Your task to perform on an android device: check android version Image 0: 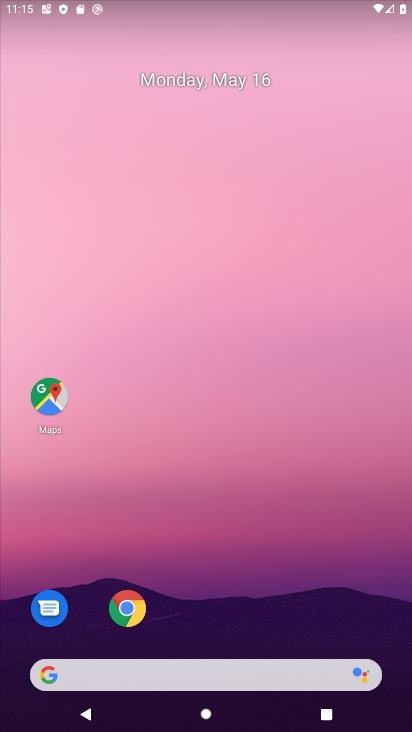
Step 0: press home button
Your task to perform on an android device: check android version Image 1: 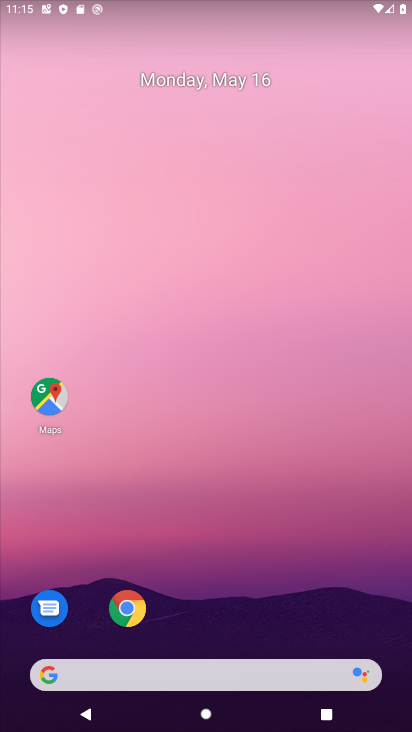
Step 1: drag from (218, 683) to (334, 271)
Your task to perform on an android device: check android version Image 2: 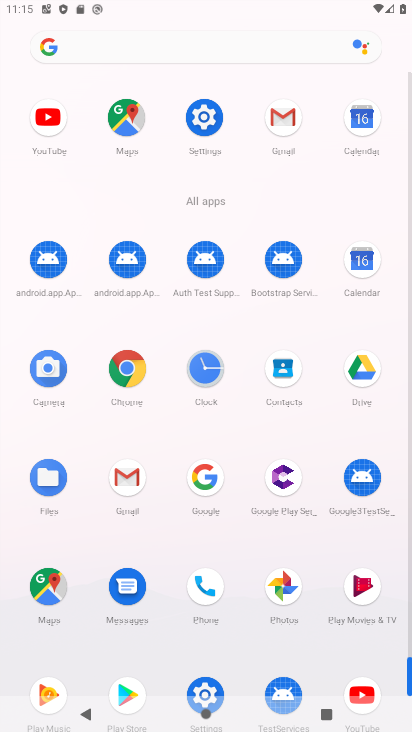
Step 2: click (209, 120)
Your task to perform on an android device: check android version Image 3: 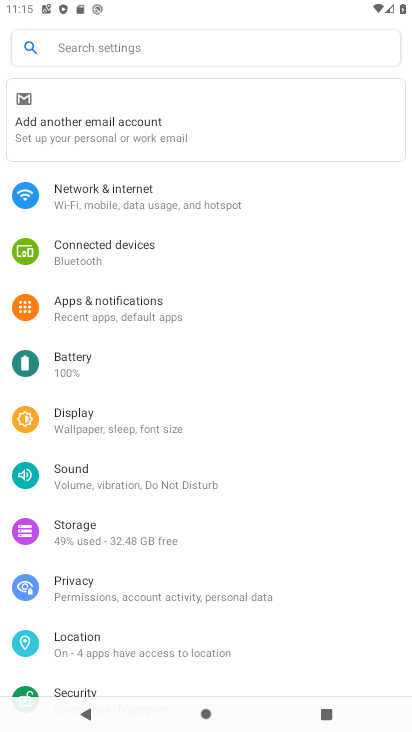
Step 3: drag from (235, 623) to (349, 70)
Your task to perform on an android device: check android version Image 4: 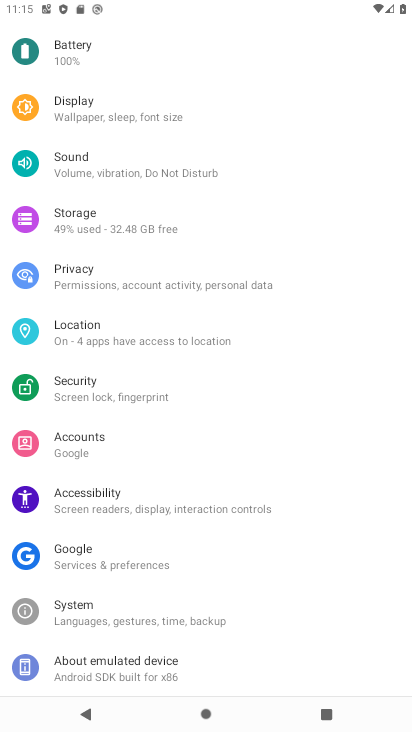
Step 4: click (123, 660)
Your task to perform on an android device: check android version Image 5: 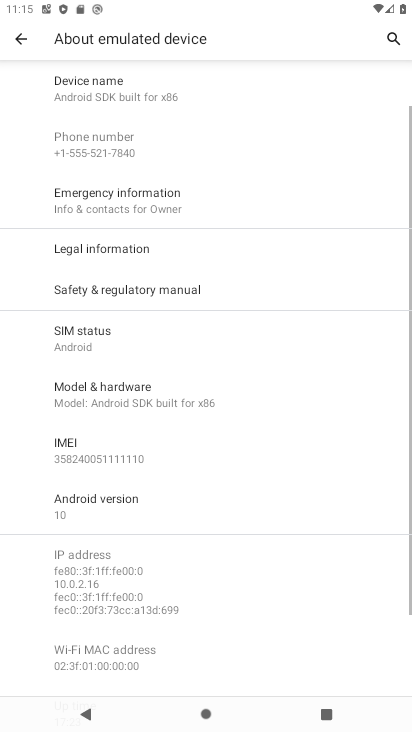
Step 5: click (110, 493)
Your task to perform on an android device: check android version Image 6: 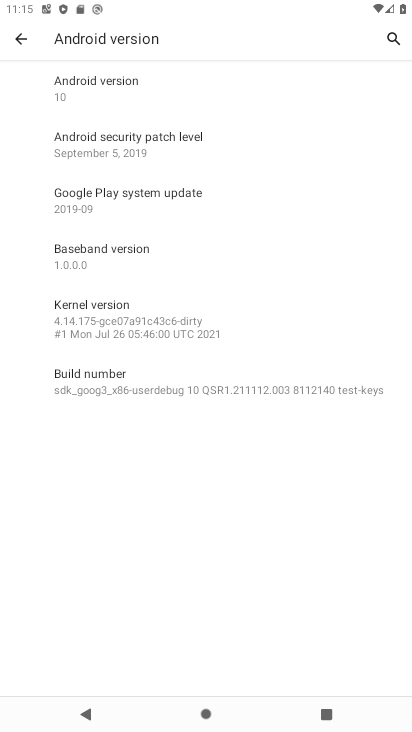
Step 6: task complete